Your task to perform on an android device: turn on wifi Image 0: 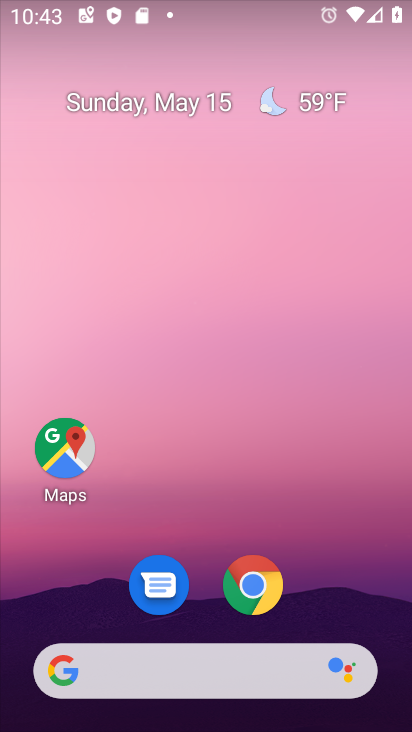
Step 0: drag from (223, 516) to (241, 32)
Your task to perform on an android device: turn on wifi Image 1: 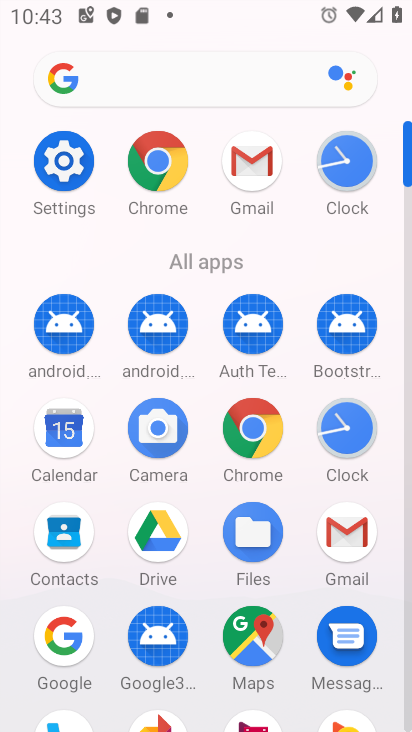
Step 1: click (76, 147)
Your task to perform on an android device: turn on wifi Image 2: 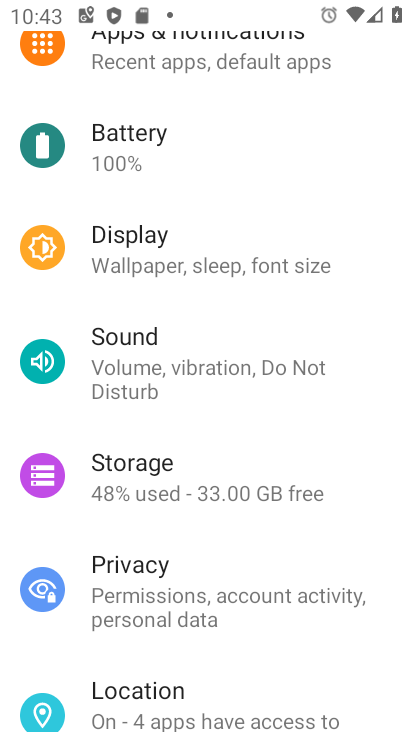
Step 2: drag from (225, 202) to (238, 705)
Your task to perform on an android device: turn on wifi Image 3: 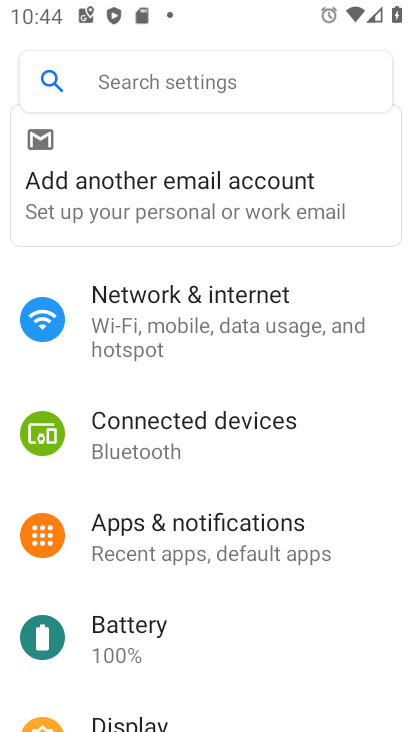
Step 3: click (199, 319)
Your task to perform on an android device: turn on wifi Image 4: 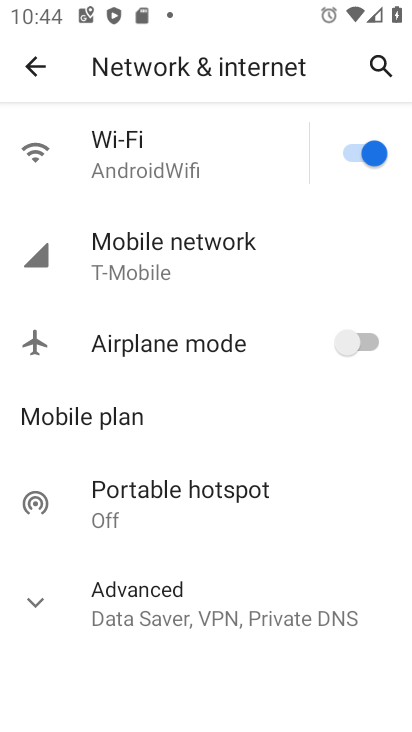
Step 4: task complete